Your task to perform on an android device: Turn on the flashlight Image 0: 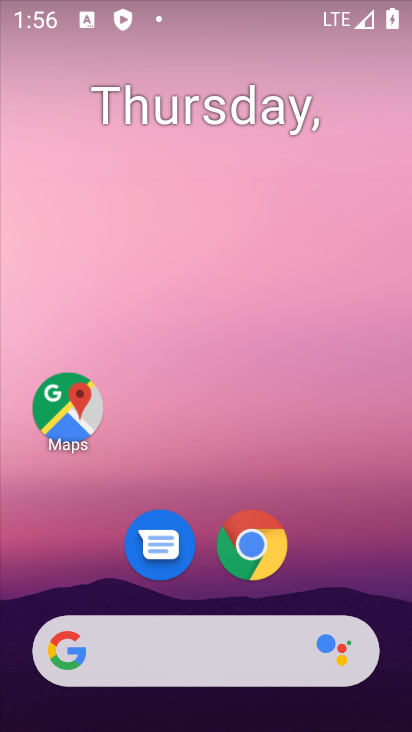
Step 0: drag from (271, 676) to (239, 112)
Your task to perform on an android device: Turn on the flashlight Image 1: 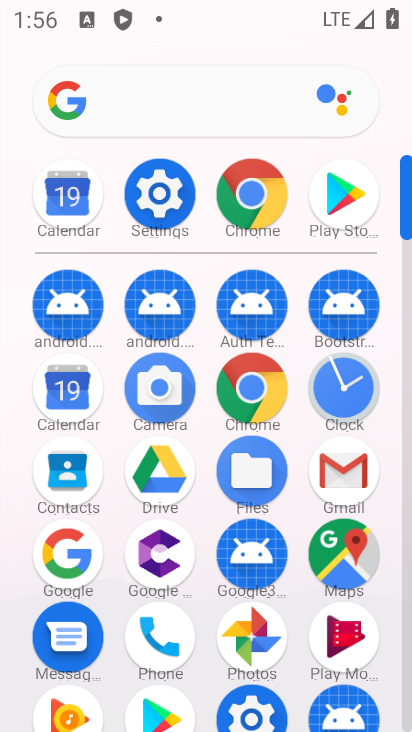
Step 1: click (140, 176)
Your task to perform on an android device: Turn on the flashlight Image 2: 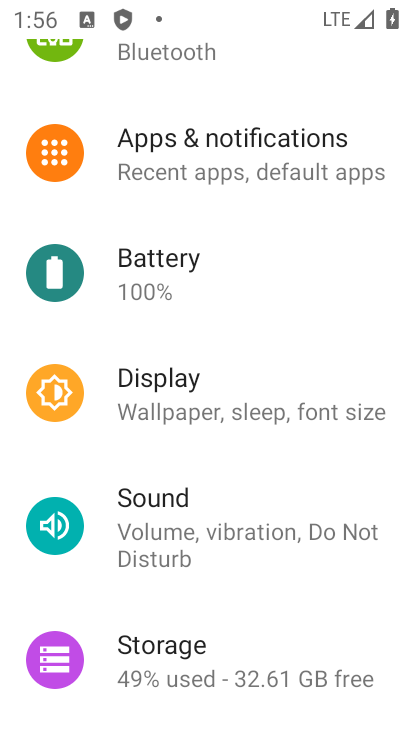
Step 2: task complete